Your task to perform on an android device: Open calendar and show me the fourth week of next month Image 0: 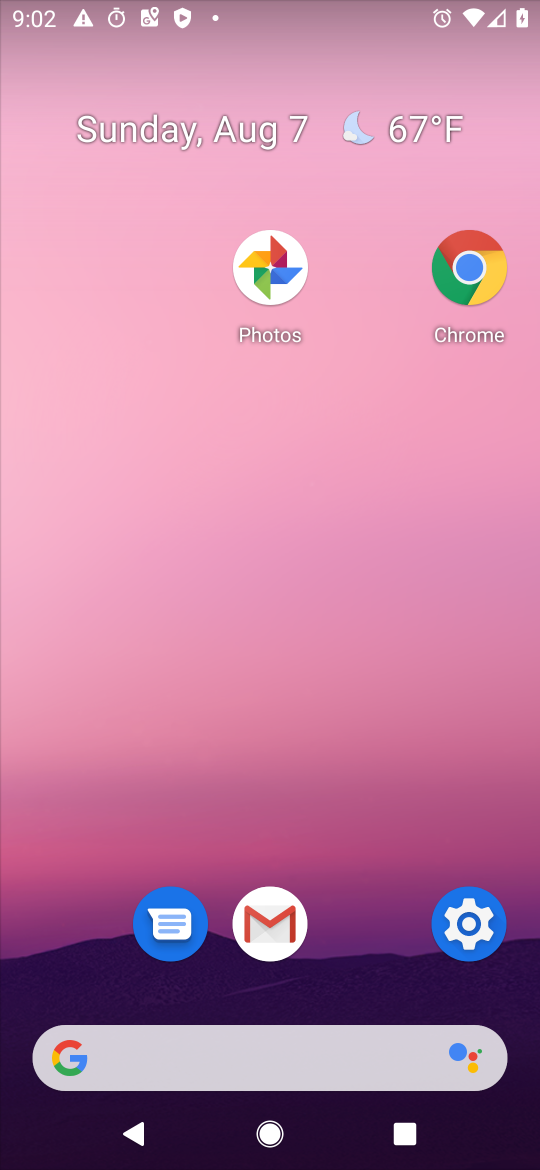
Step 0: drag from (331, 1065) to (211, 252)
Your task to perform on an android device: Open calendar and show me the fourth week of next month Image 1: 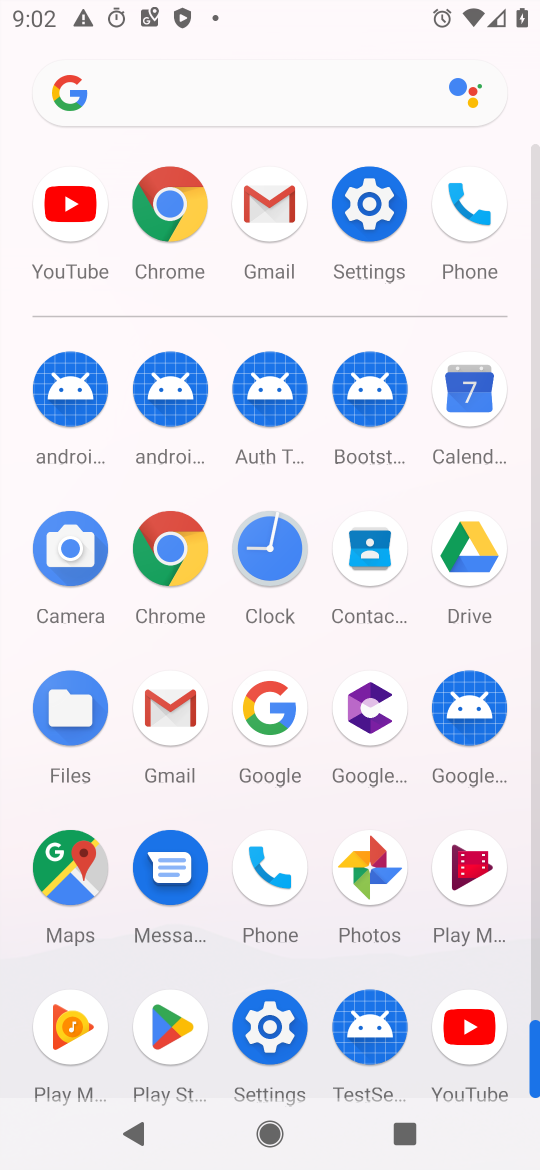
Step 1: click (458, 391)
Your task to perform on an android device: Open calendar and show me the fourth week of next month Image 2: 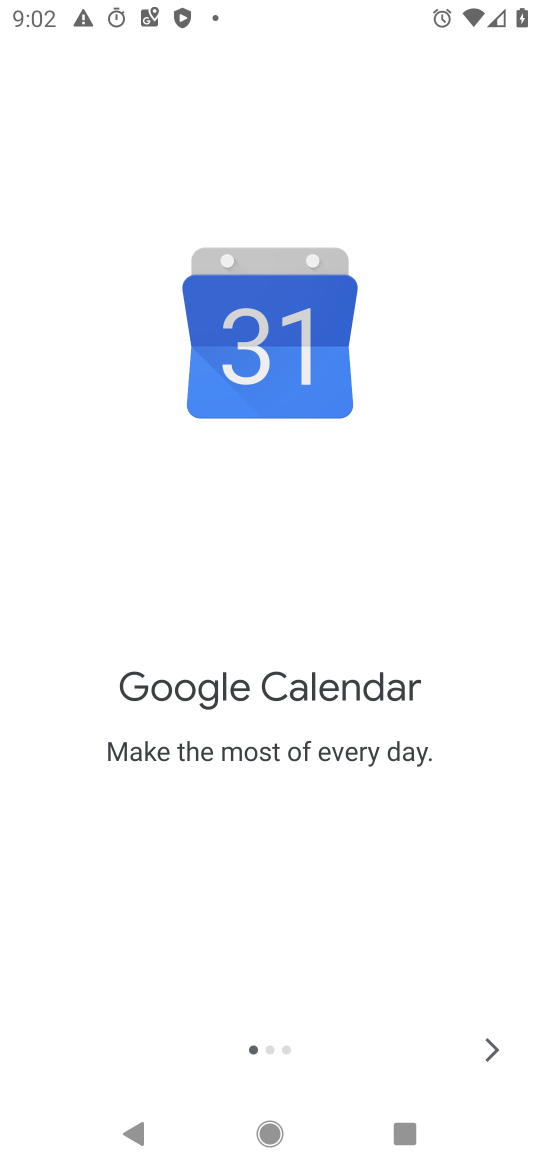
Step 2: click (464, 1034)
Your task to perform on an android device: Open calendar and show me the fourth week of next month Image 3: 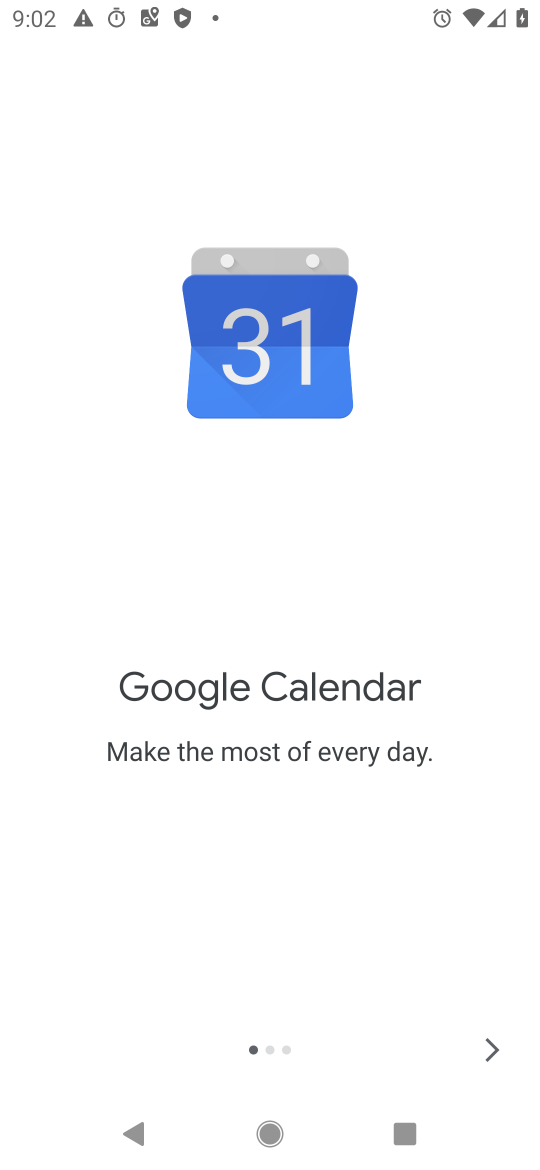
Step 3: click (464, 1034)
Your task to perform on an android device: Open calendar and show me the fourth week of next month Image 4: 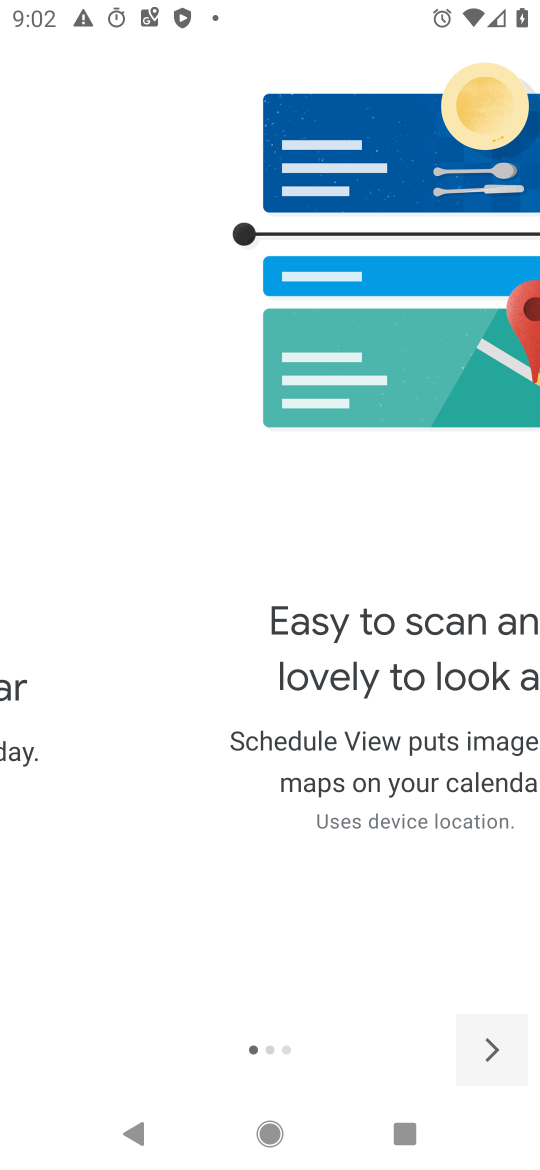
Step 4: click (464, 1034)
Your task to perform on an android device: Open calendar and show me the fourth week of next month Image 5: 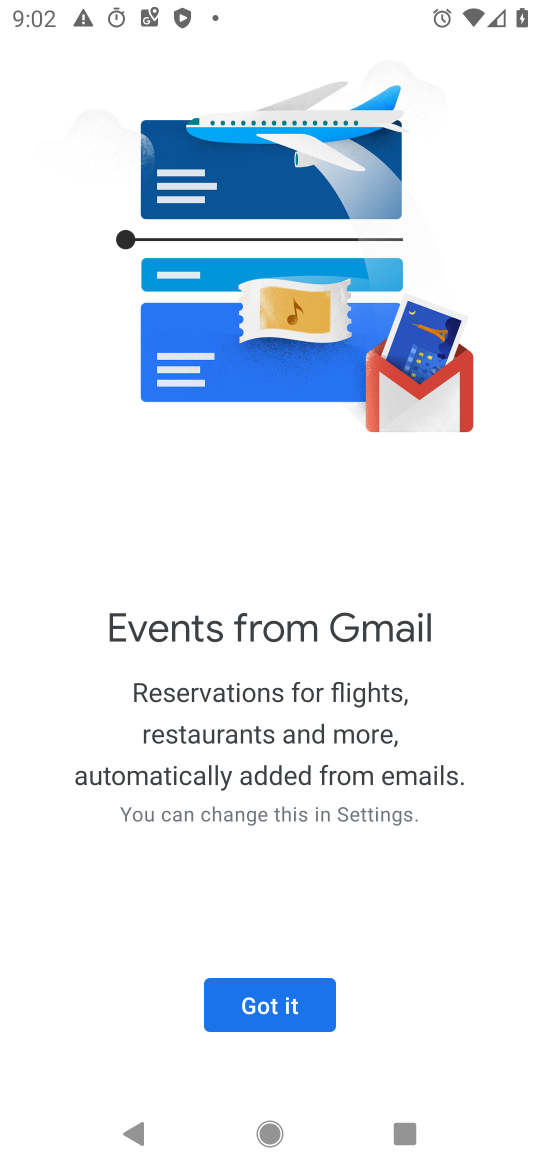
Step 5: click (249, 978)
Your task to perform on an android device: Open calendar and show me the fourth week of next month Image 6: 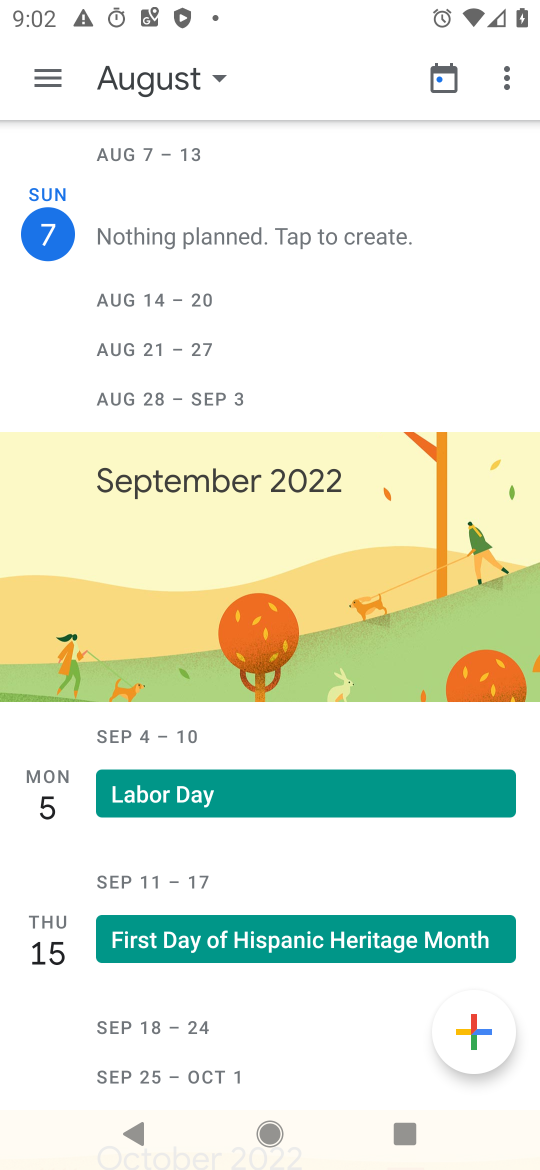
Step 6: click (38, 85)
Your task to perform on an android device: Open calendar and show me the fourth week of next month Image 7: 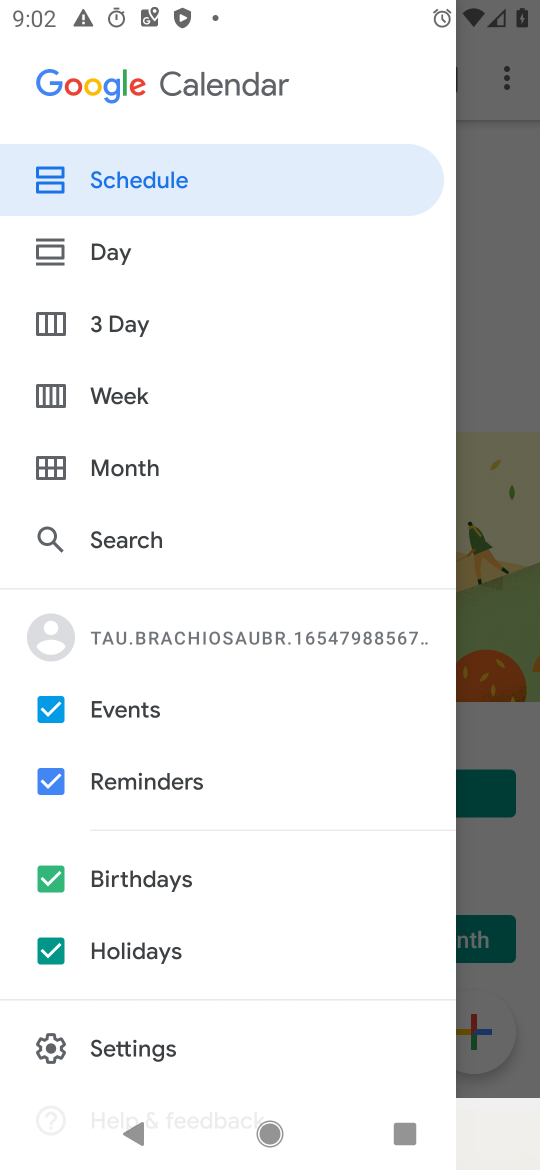
Step 7: click (168, 461)
Your task to perform on an android device: Open calendar and show me the fourth week of next month Image 8: 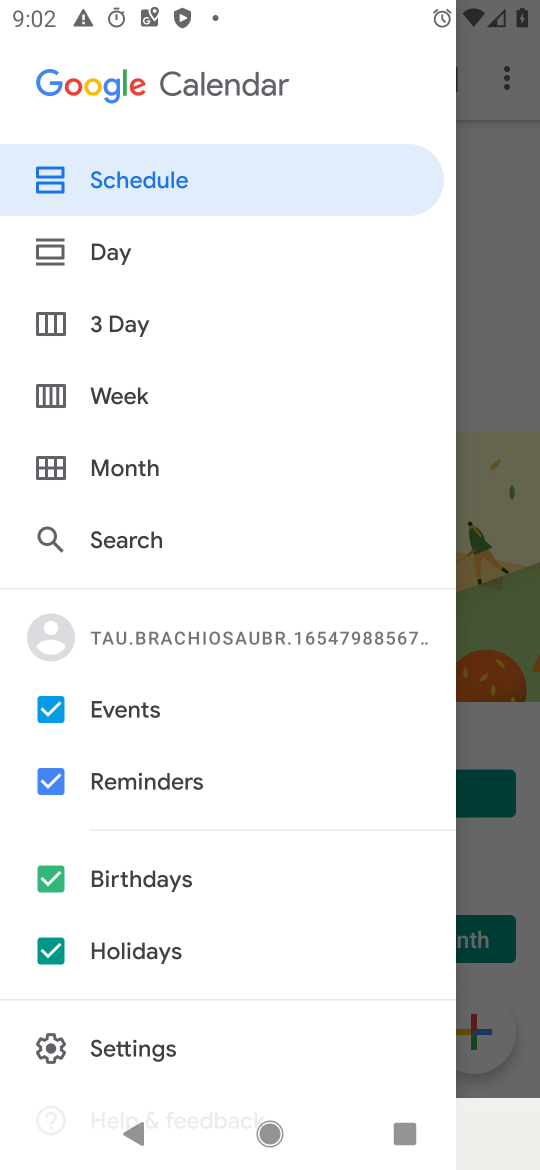
Step 8: click (152, 476)
Your task to perform on an android device: Open calendar and show me the fourth week of next month Image 9: 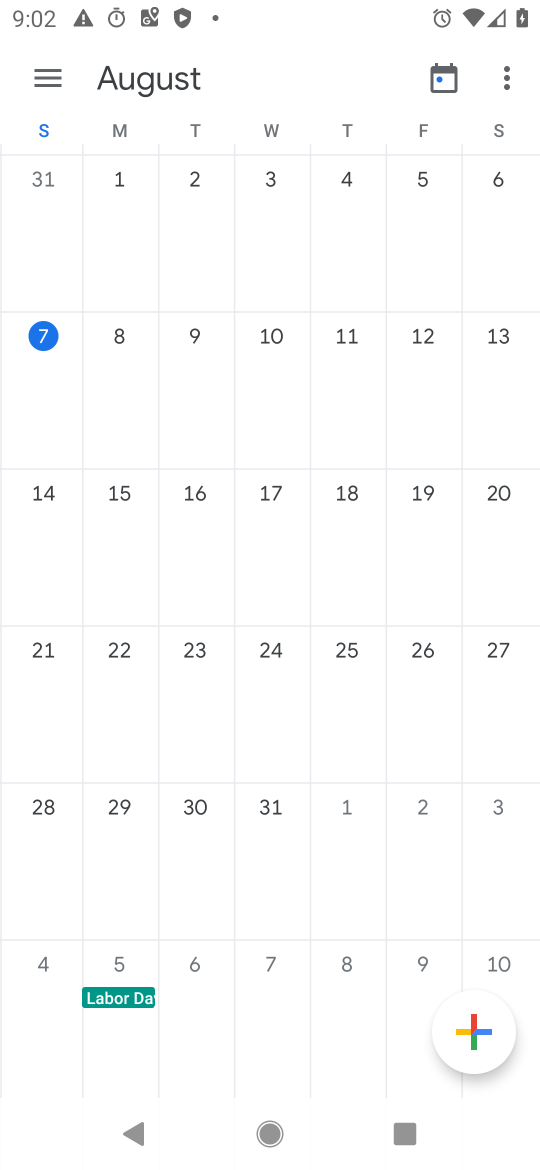
Step 9: click (277, 665)
Your task to perform on an android device: Open calendar and show me the fourth week of next month Image 10: 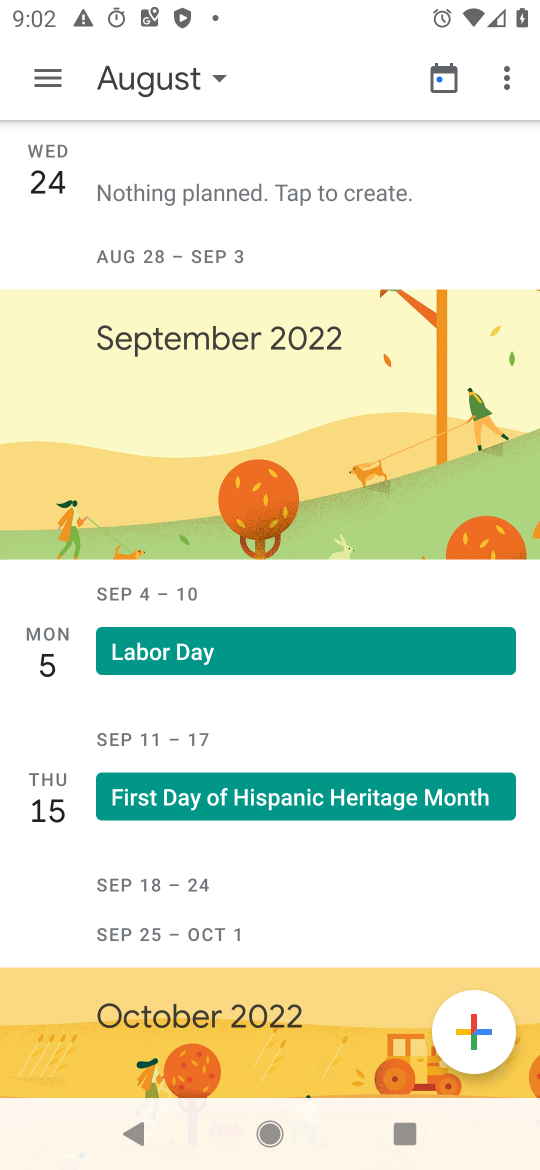
Step 10: task complete